Your task to perform on an android device: Open my contact list Image 0: 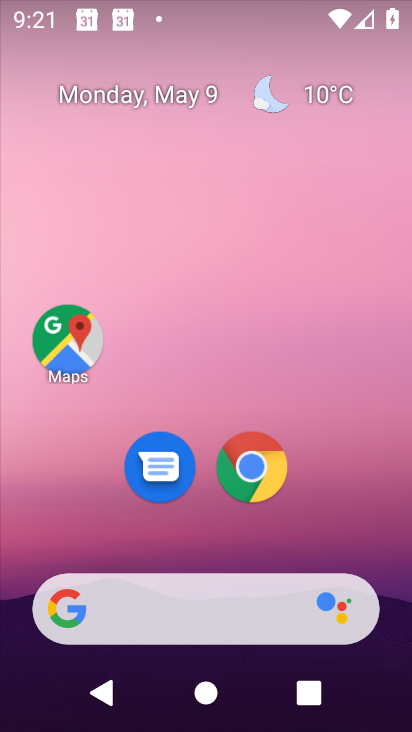
Step 0: drag from (383, 571) to (333, 7)
Your task to perform on an android device: Open my contact list Image 1: 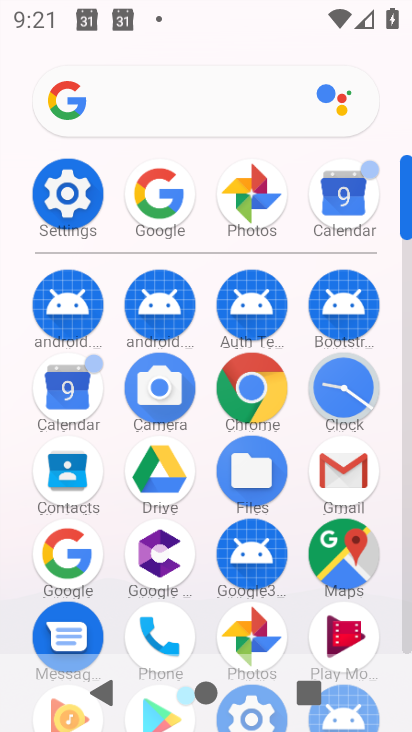
Step 1: click (72, 481)
Your task to perform on an android device: Open my contact list Image 2: 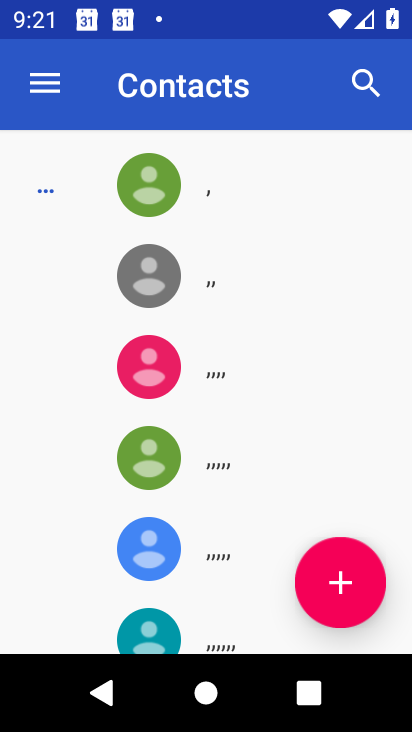
Step 2: task complete